Your task to perform on an android device: Toggle the flashlight Image 0: 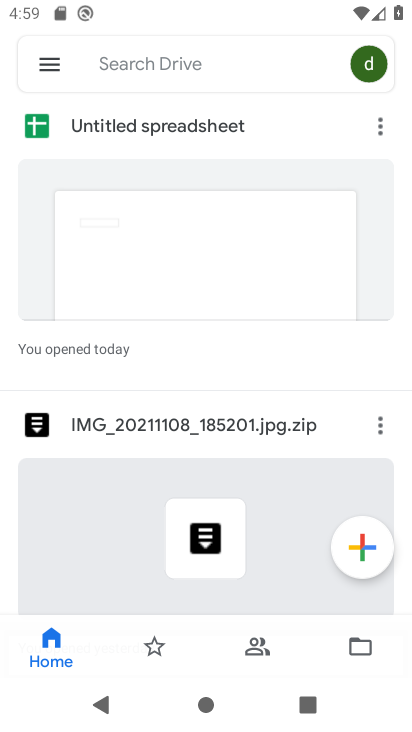
Step 0: press back button
Your task to perform on an android device: Toggle the flashlight Image 1: 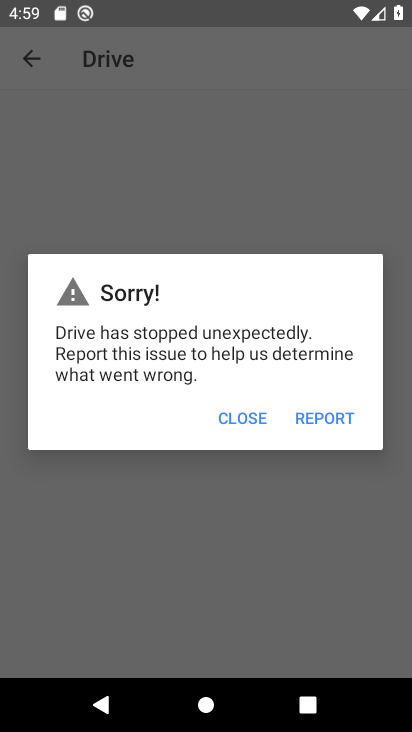
Step 1: press back button
Your task to perform on an android device: Toggle the flashlight Image 2: 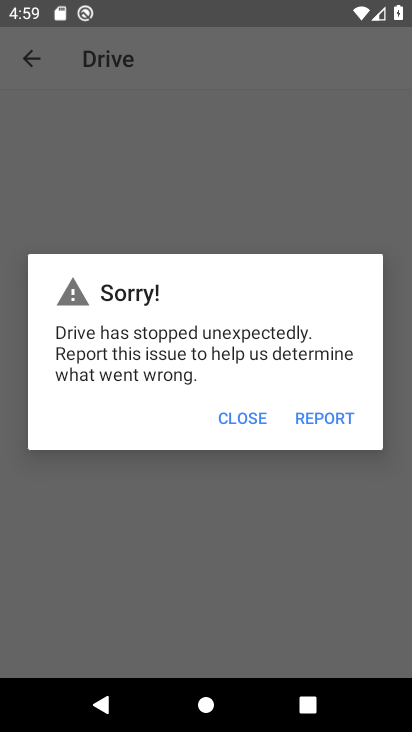
Step 2: press home button
Your task to perform on an android device: Toggle the flashlight Image 3: 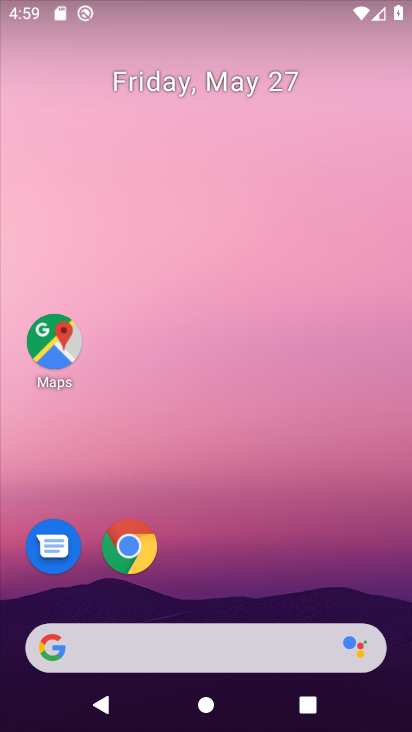
Step 3: drag from (298, 546) to (235, 73)
Your task to perform on an android device: Toggle the flashlight Image 4: 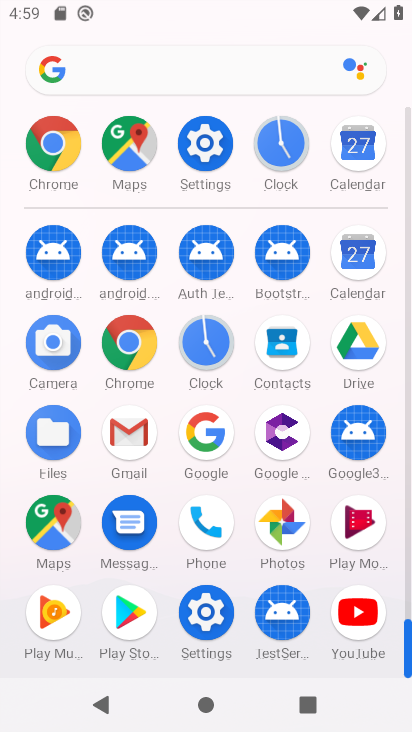
Step 4: click (199, 142)
Your task to perform on an android device: Toggle the flashlight Image 5: 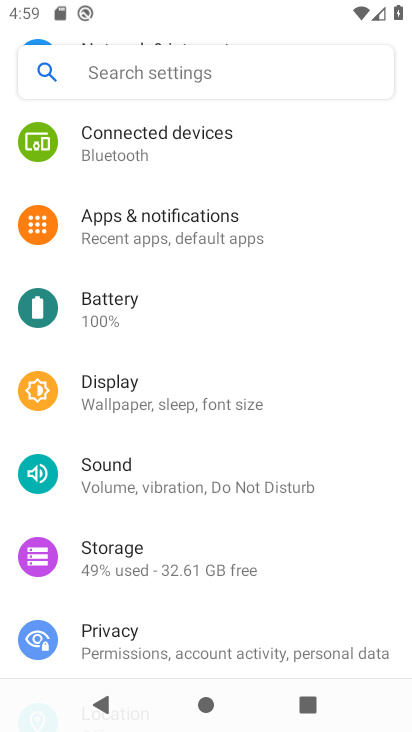
Step 5: drag from (290, 195) to (310, 538)
Your task to perform on an android device: Toggle the flashlight Image 6: 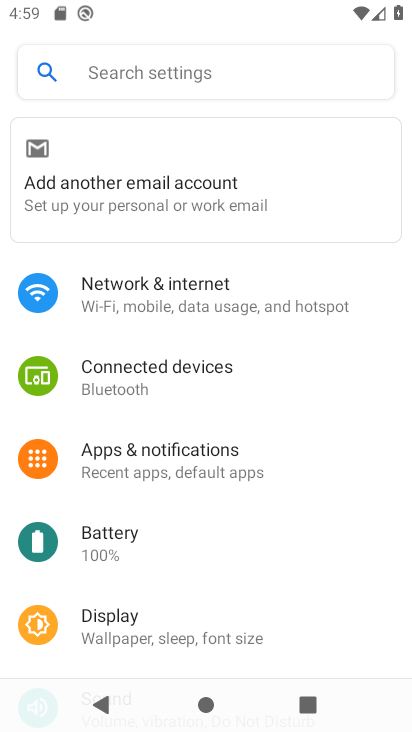
Step 6: click (237, 292)
Your task to perform on an android device: Toggle the flashlight Image 7: 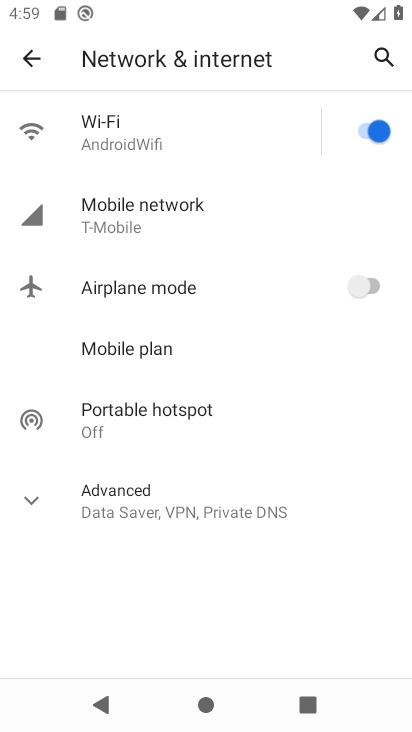
Step 7: click (32, 509)
Your task to perform on an android device: Toggle the flashlight Image 8: 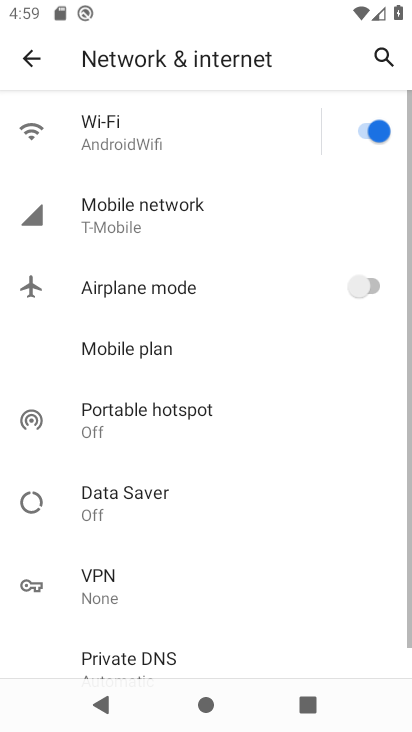
Step 8: task complete